Your task to perform on an android device: Open ESPN.com Image 0: 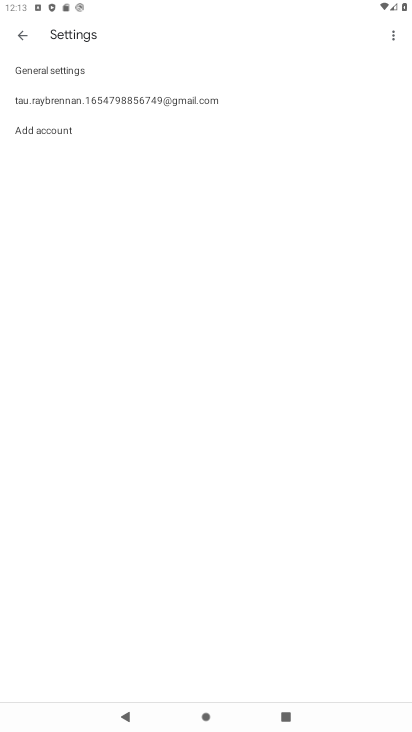
Step 0: press home button
Your task to perform on an android device: Open ESPN.com Image 1: 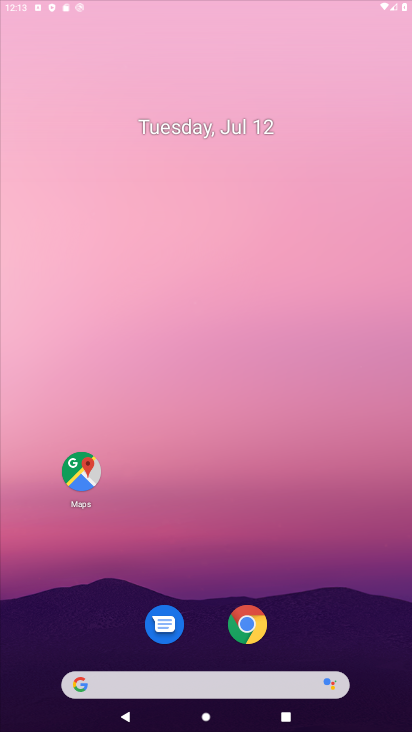
Step 1: press home button
Your task to perform on an android device: Open ESPN.com Image 2: 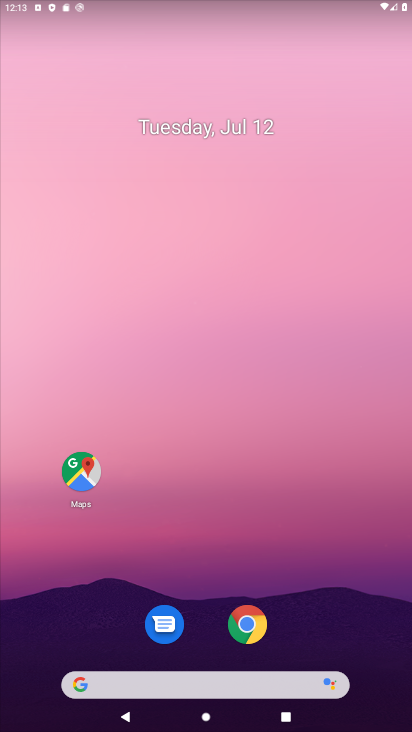
Step 2: click (254, 626)
Your task to perform on an android device: Open ESPN.com Image 3: 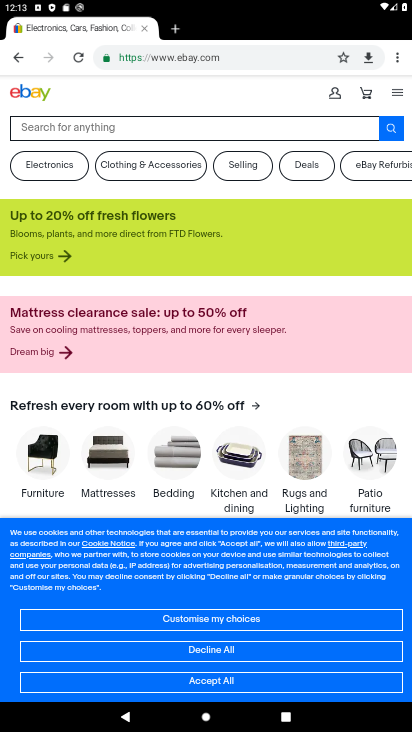
Step 3: click (179, 28)
Your task to perform on an android device: Open ESPN.com Image 4: 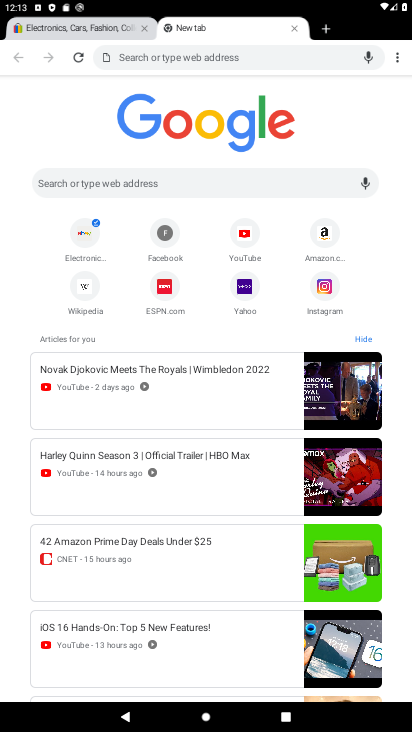
Step 4: click (170, 291)
Your task to perform on an android device: Open ESPN.com Image 5: 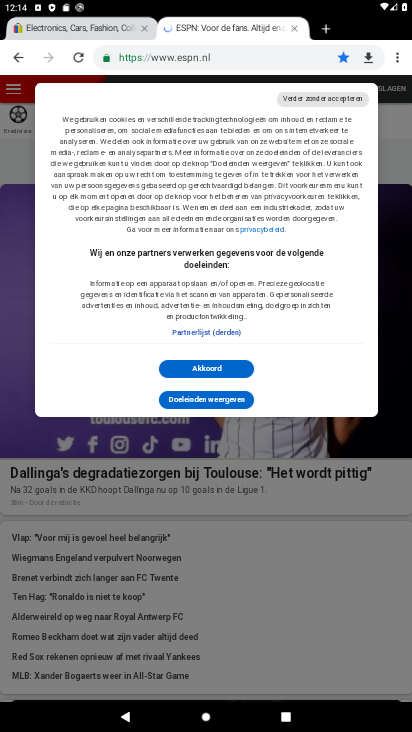
Step 5: task complete